Your task to perform on an android device: clear all cookies in the chrome app Image 0: 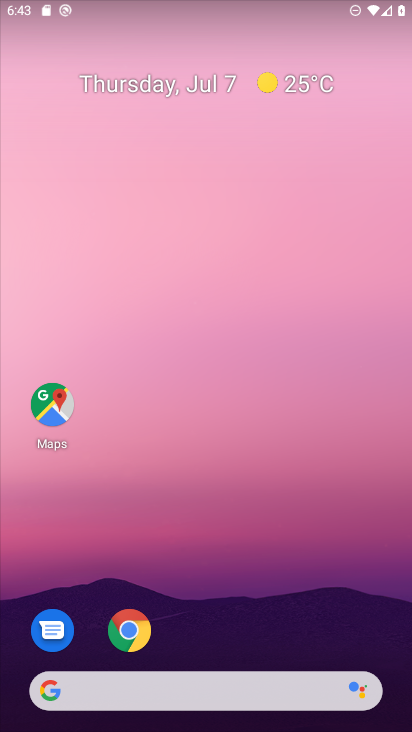
Step 0: click (121, 632)
Your task to perform on an android device: clear all cookies in the chrome app Image 1: 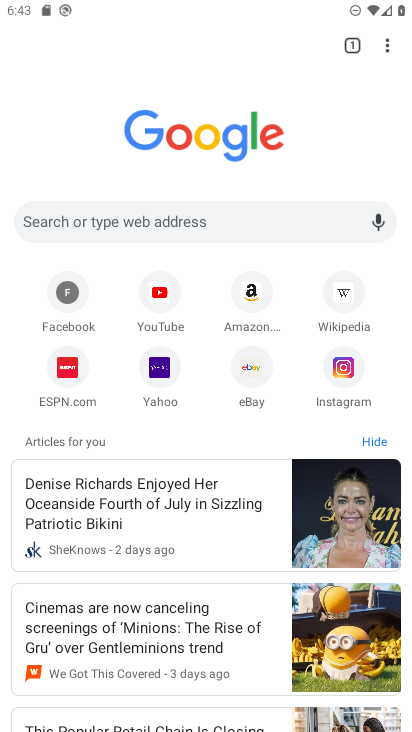
Step 1: click (387, 41)
Your task to perform on an android device: clear all cookies in the chrome app Image 2: 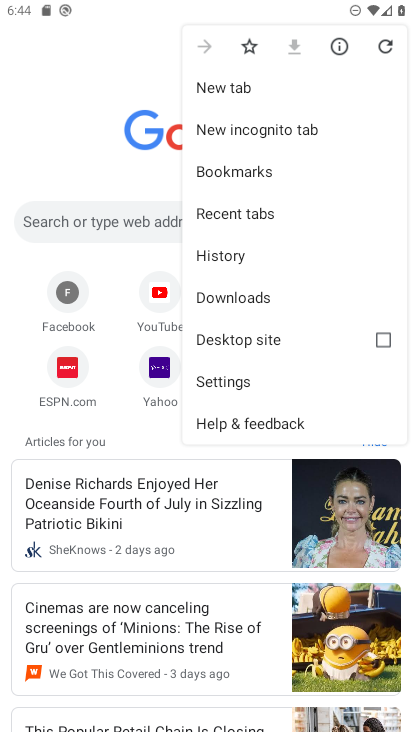
Step 2: click (233, 259)
Your task to perform on an android device: clear all cookies in the chrome app Image 3: 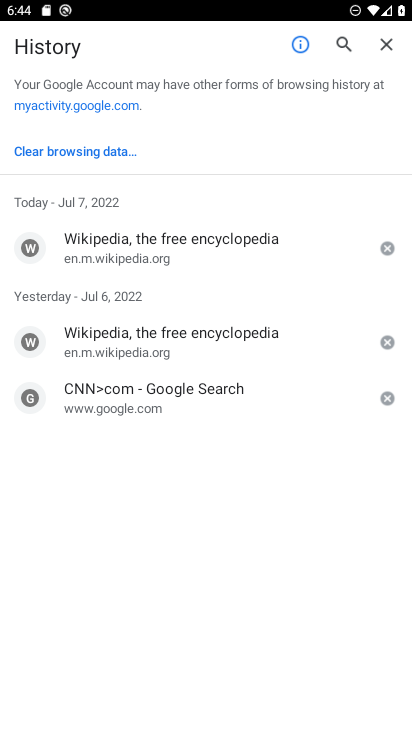
Step 3: click (88, 145)
Your task to perform on an android device: clear all cookies in the chrome app Image 4: 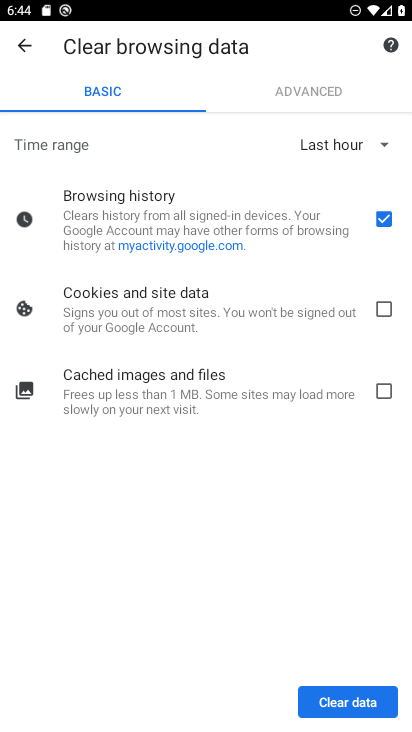
Step 4: click (385, 303)
Your task to perform on an android device: clear all cookies in the chrome app Image 5: 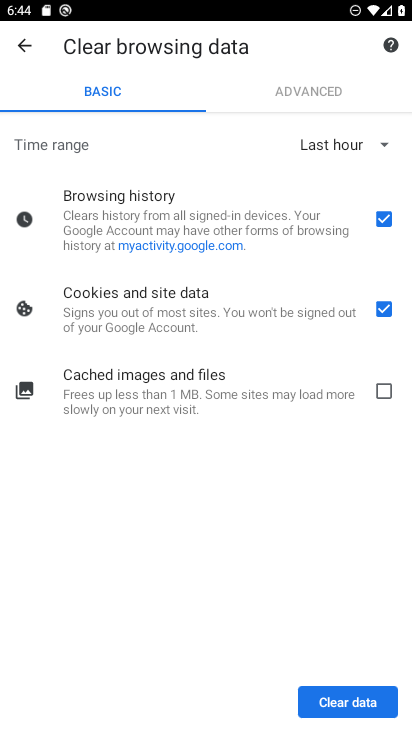
Step 5: click (381, 217)
Your task to perform on an android device: clear all cookies in the chrome app Image 6: 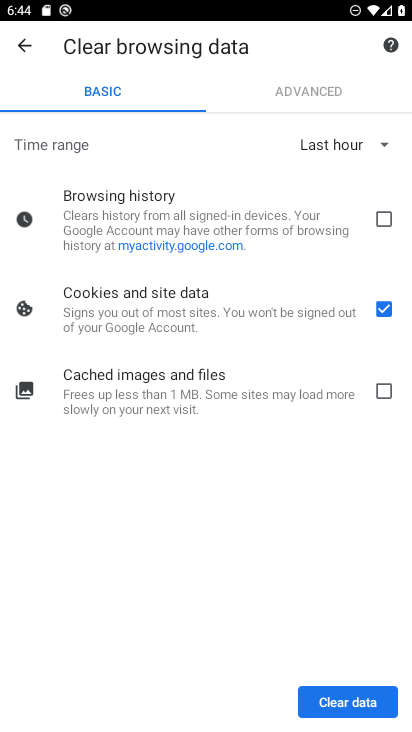
Step 6: click (381, 141)
Your task to perform on an android device: clear all cookies in the chrome app Image 7: 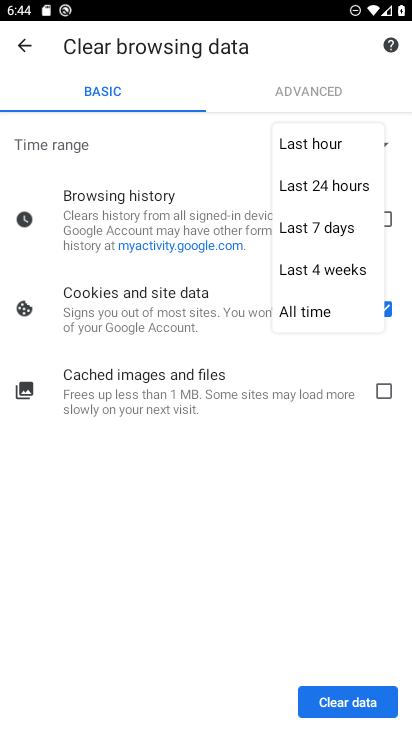
Step 7: click (328, 309)
Your task to perform on an android device: clear all cookies in the chrome app Image 8: 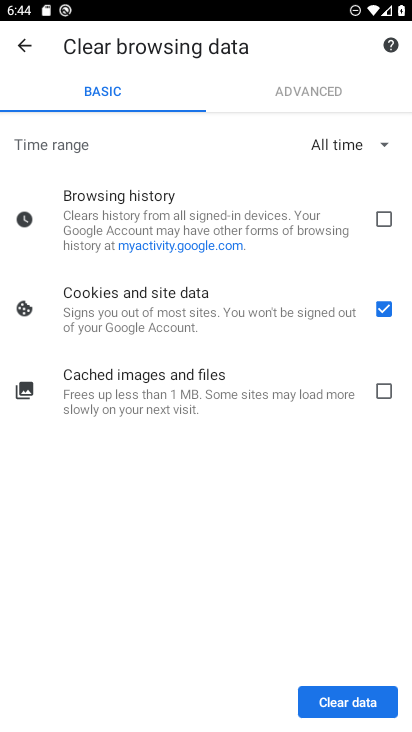
Step 8: click (351, 698)
Your task to perform on an android device: clear all cookies in the chrome app Image 9: 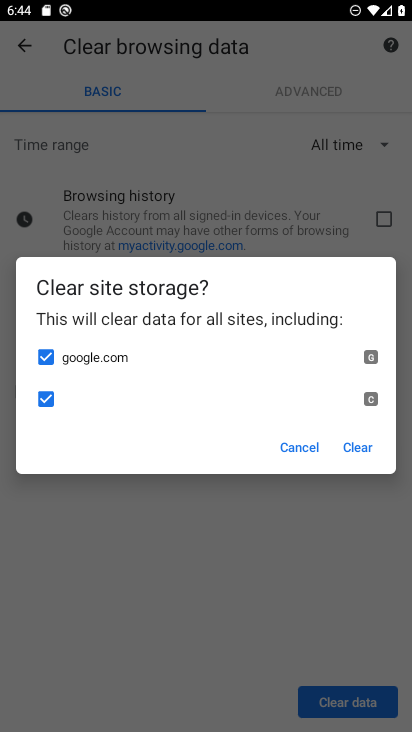
Step 9: click (359, 448)
Your task to perform on an android device: clear all cookies in the chrome app Image 10: 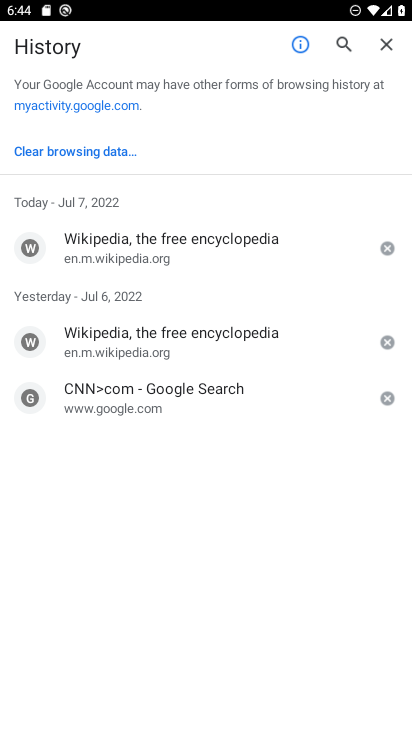
Step 10: task complete